Your task to perform on an android device: Open Google Chrome and open the bookmarks view Image 0: 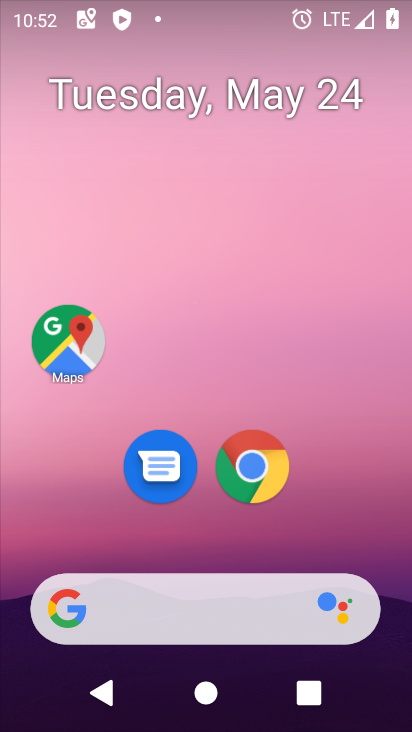
Step 0: drag from (371, 540) to (357, 228)
Your task to perform on an android device: Open Google Chrome and open the bookmarks view Image 1: 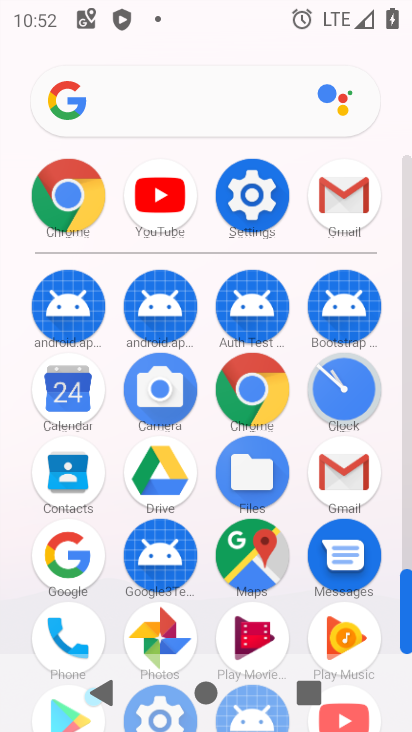
Step 1: click (274, 412)
Your task to perform on an android device: Open Google Chrome and open the bookmarks view Image 2: 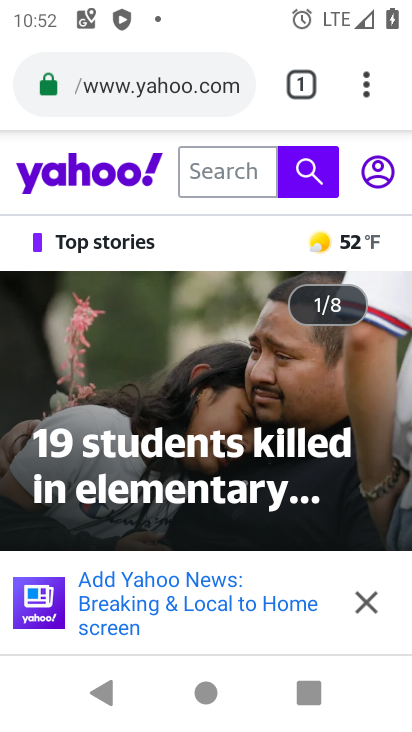
Step 2: click (364, 100)
Your task to perform on an android device: Open Google Chrome and open the bookmarks view Image 3: 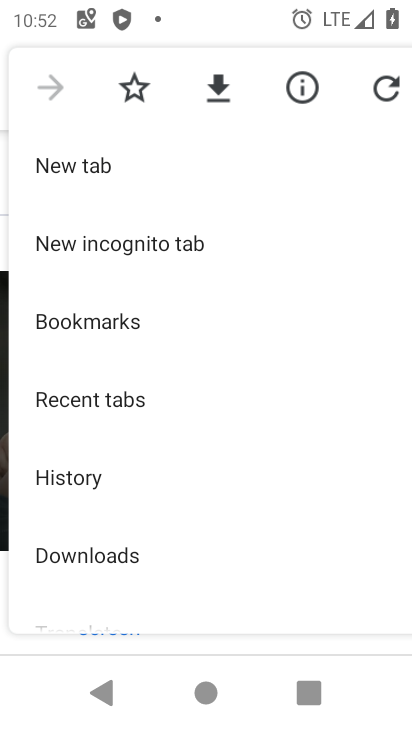
Step 3: click (172, 332)
Your task to perform on an android device: Open Google Chrome and open the bookmarks view Image 4: 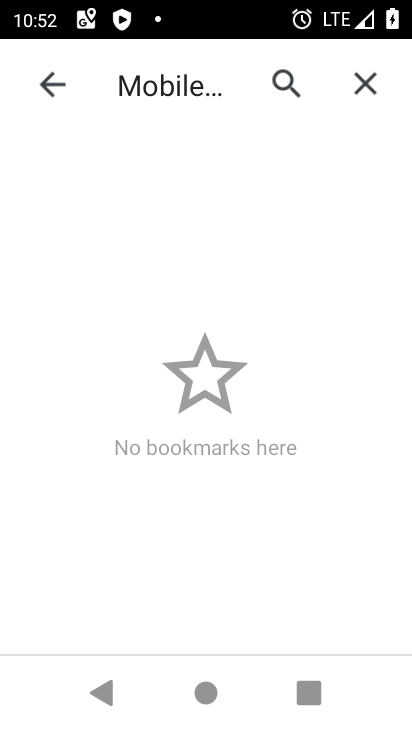
Step 4: task complete